Your task to perform on an android device: Open sound settings Image 0: 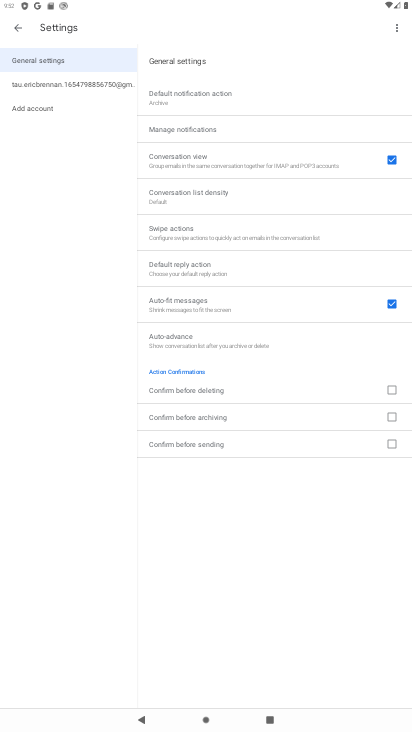
Step 0: press home button
Your task to perform on an android device: Open sound settings Image 1: 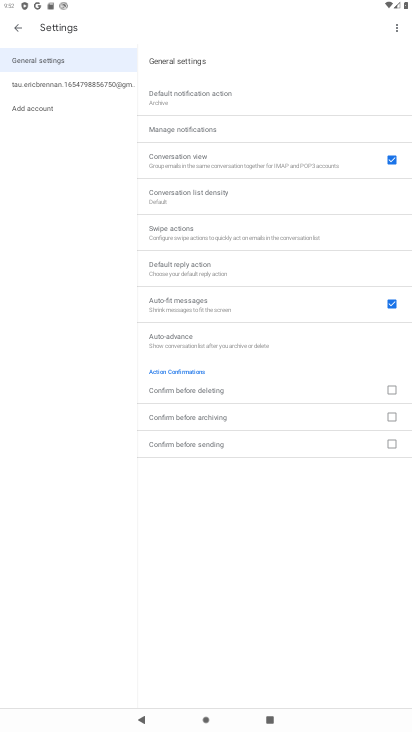
Step 1: press home button
Your task to perform on an android device: Open sound settings Image 2: 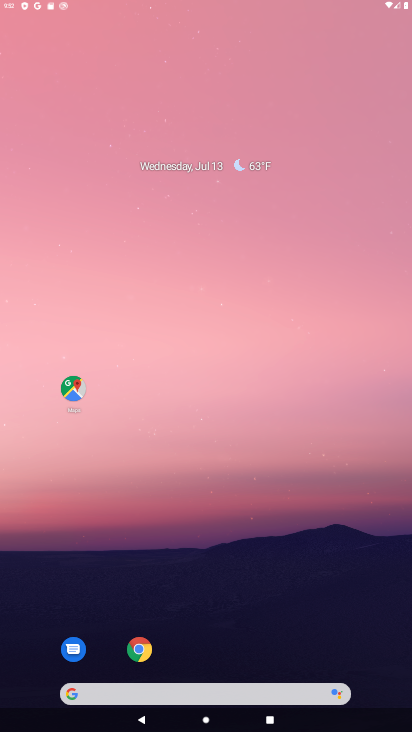
Step 2: drag from (190, 595) to (251, 0)
Your task to perform on an android device: Open sound settings Image 3: 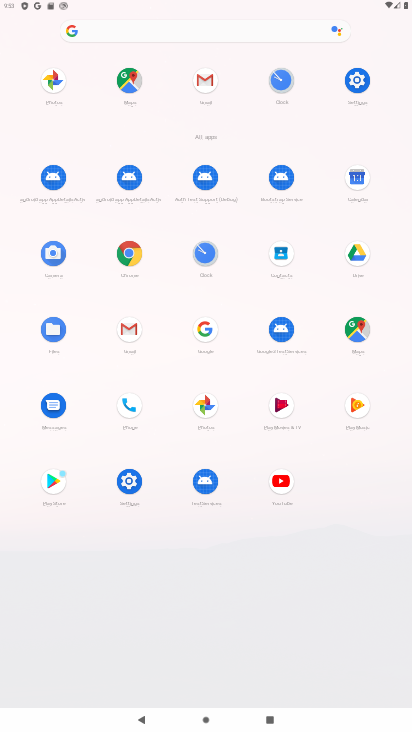
Step 3: click (120, 483)
Your task to perform on an android device: Open sound settings Image 4: 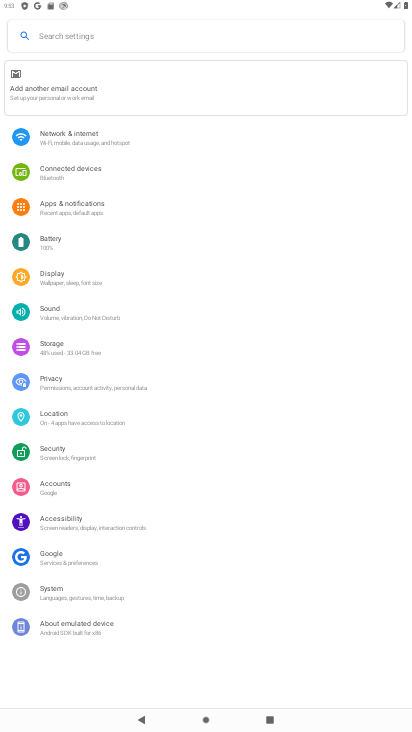
Step 4: click (60, 311)
Your task to perform on an android device: Open sound settings Image 5: 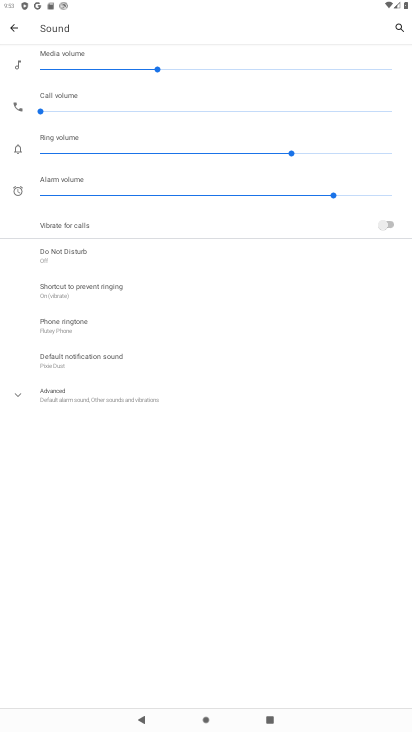
Step 5: task complete